Your task to perform on an android device: What's the weather? Image 0: 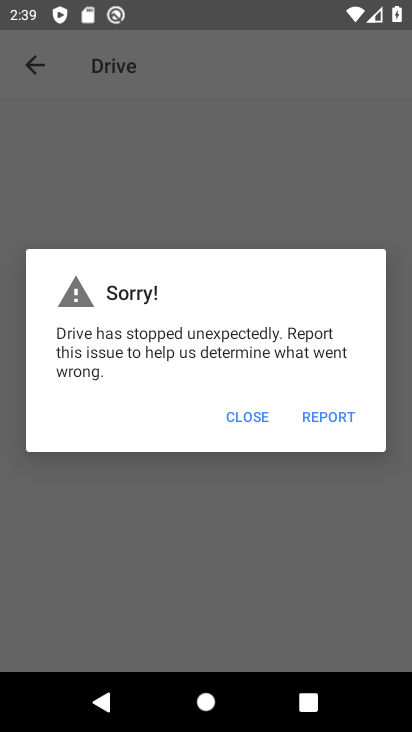
Step 0: press home button
Your task to perform on an android device: What's the weather? Image 1: 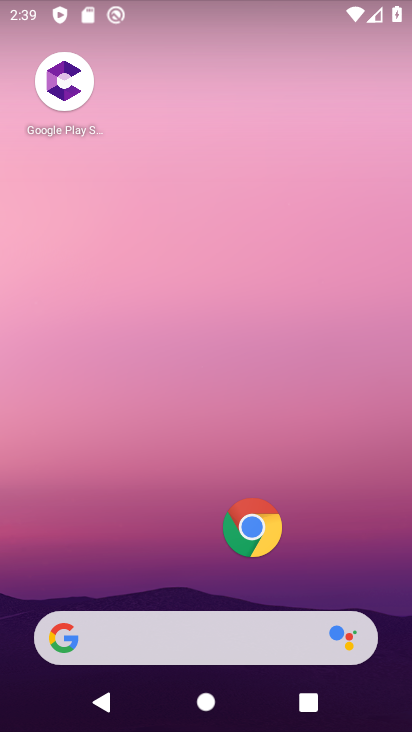
Step 1: click (162, 639)
Your task to perform on an android device: What's the weather? Image 2: 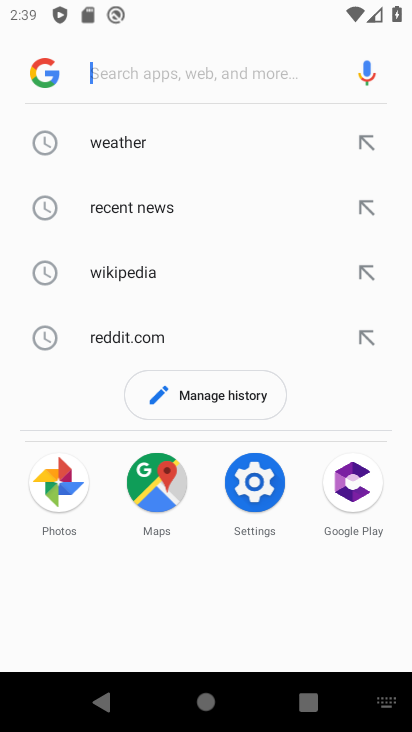
Step 2: click (200, 116)
Your task to perform on an android device: What's the weather? Image 3: 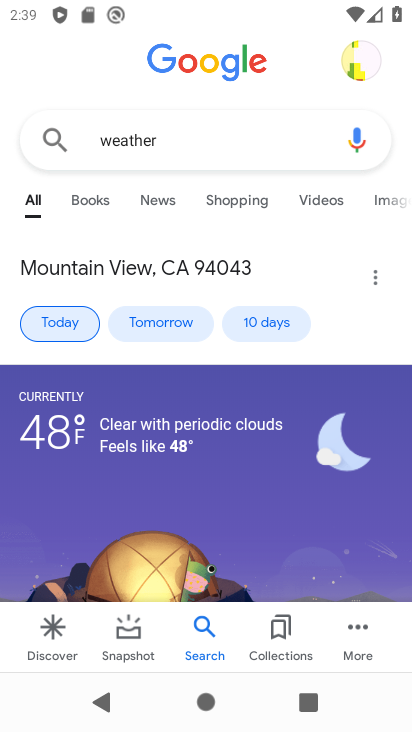
Step 3: task complete